Your task to perform on an android device: Set the phone to "Do not disturb". Image 0: 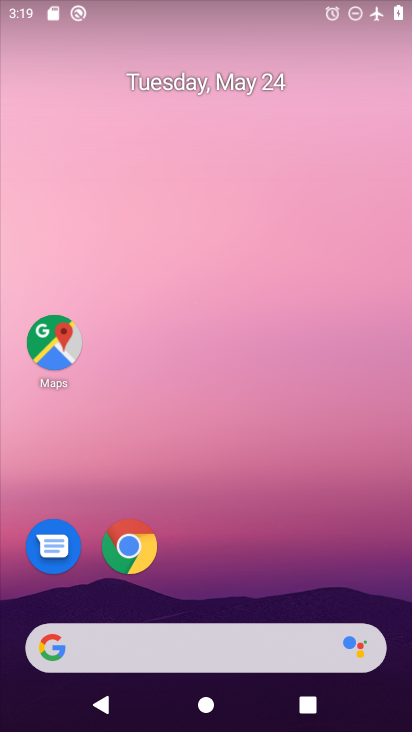
Step 0: drag from (223, 666) to (225, 3)
Your task to perform on an android device: Set the phone to "Do not disturb". Image 1: 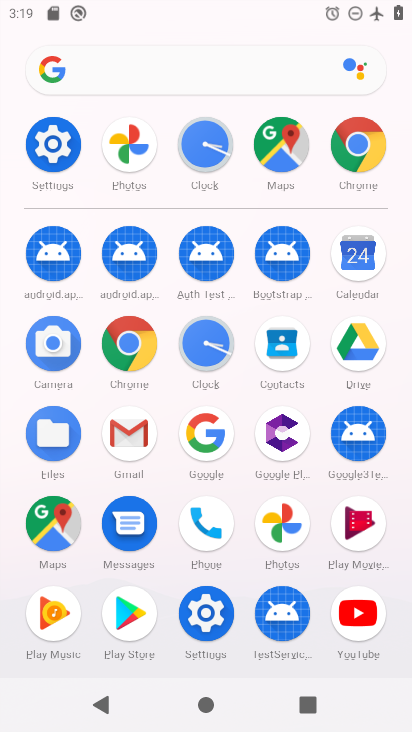
Step 1: click (74, 145)
Your task to perform on an android device: Set the phone to "Do not disturb". Image 2: 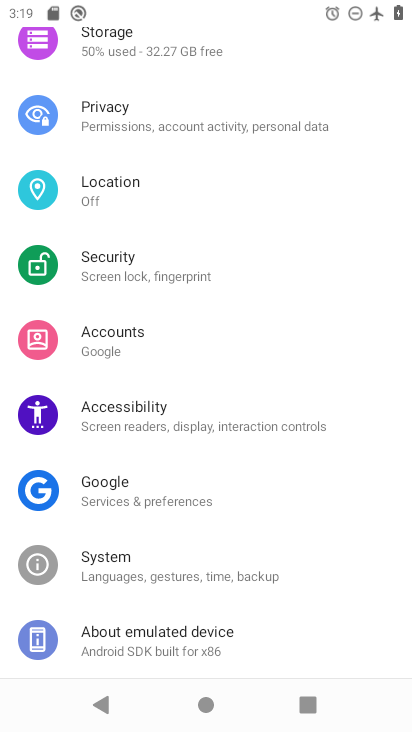
Step 2: drag from (149, 225) to (135, 607)
Your task to perform on an android device: Set the phone to "Do not disturb". Image 3: 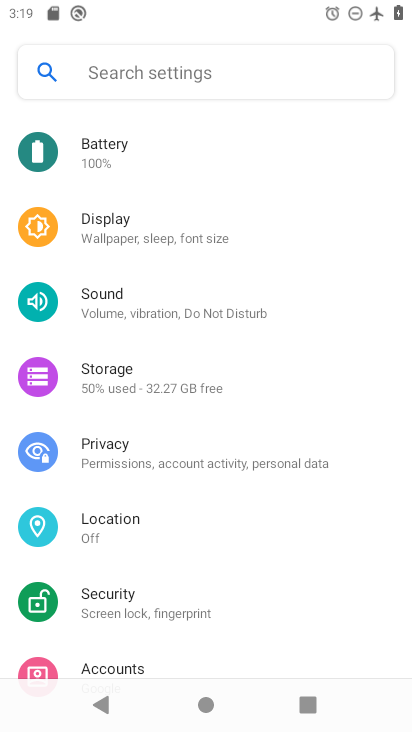
Step 3: drag from (126, 246) to (125, 442)
Your task to perform on an android device: Set the phone to "Do not disturb". Image 4: 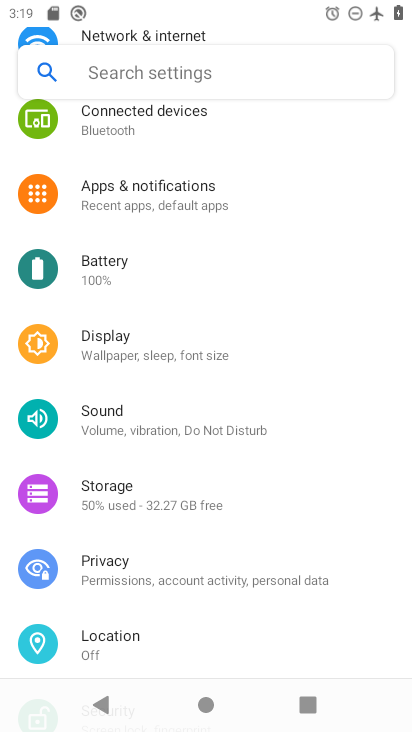
Step 4: click (120, 407)
Your task to perform on an android device: Set the phone to "Do not disturb". Image 5: 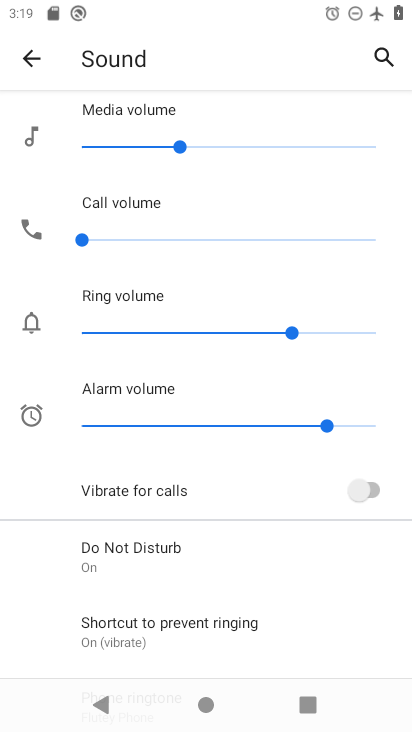
Step 5: task complete